Your task to perform on an android device: open chrome and create a bookmark for the current page Image 0: 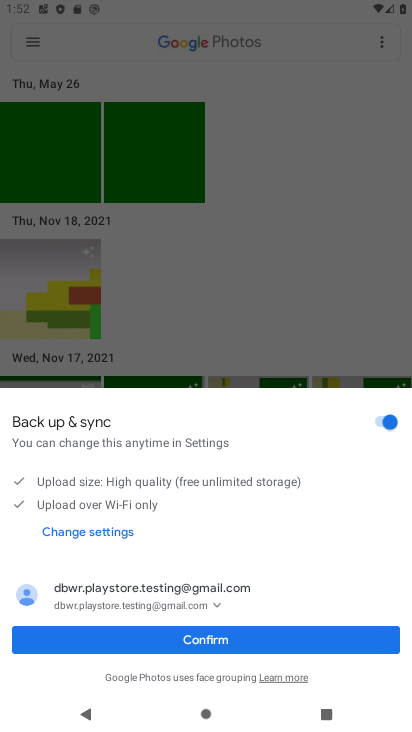
Step 0: press home button
Your task to perform on an android device: open chrome and create a bookmark for the current page Image 1: 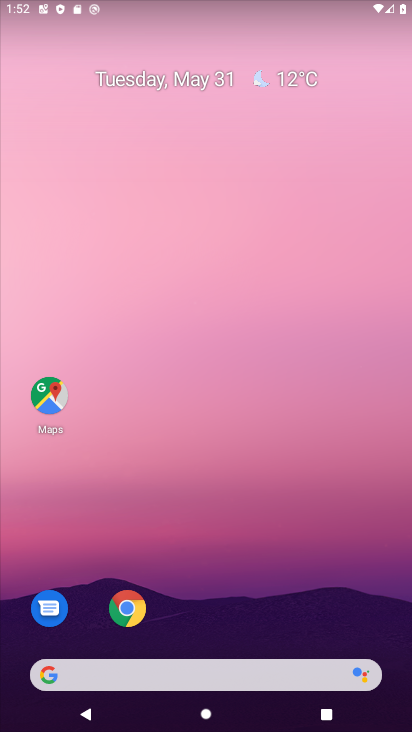
Step 1: drag from (345, 513) to (345, 170)
Your task to perform on an android device: open chrome and create a bookmark for the current page Image 2: 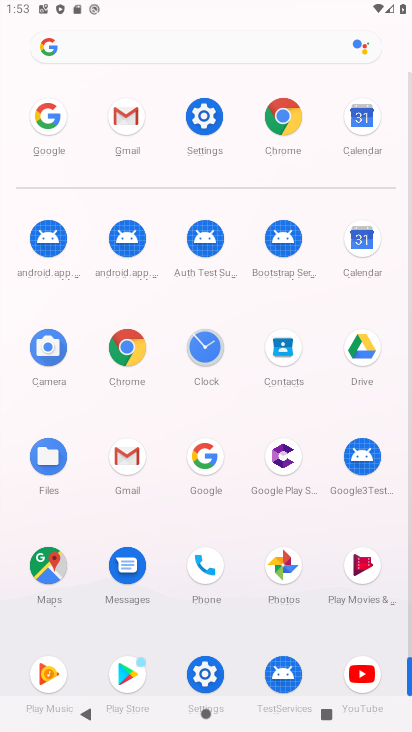
Step 2: click (116, 358)
Your task to perform on an android device: open chrome and create a bookmark for the current page Image 3: 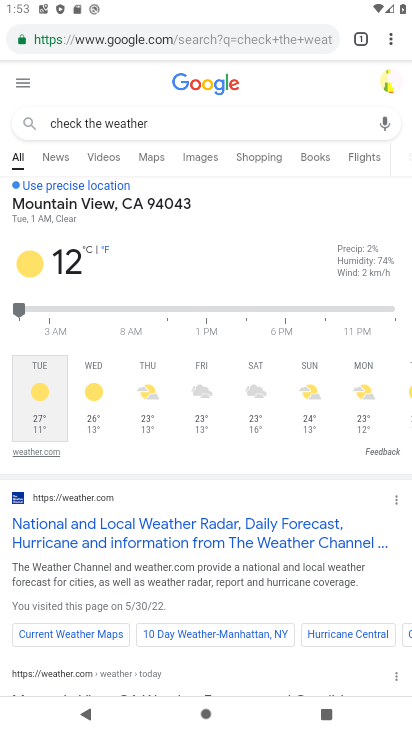
Step 3: drag from (387, 40) to (306, 143)
Your task to perform on an android device: open chrome and create a bookmark for the current page Image 4: 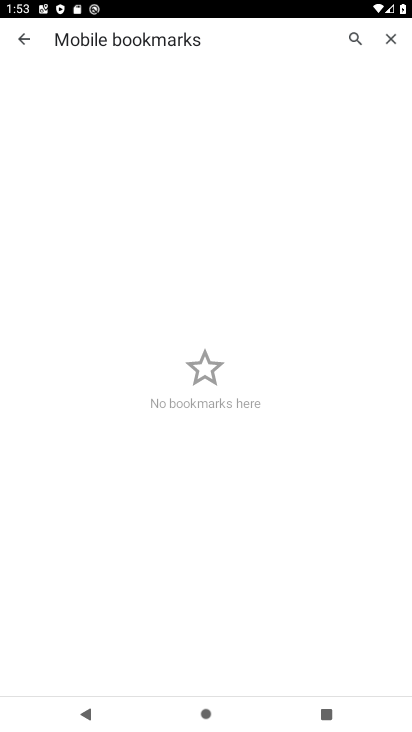
Step 4: click (17, 37)
Your task to perform on an android device: open chrome and create a bookmark for the current page Image 5: 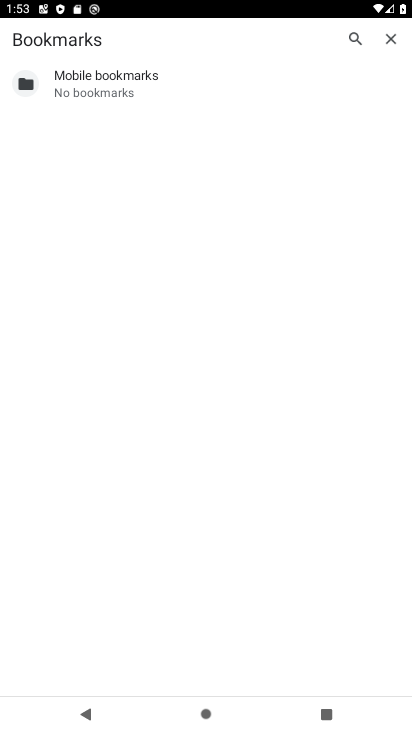
Step 5: click (380, 40)
Your task to perform on an android device: open chrome and create a bookmark for the current page Image 6: 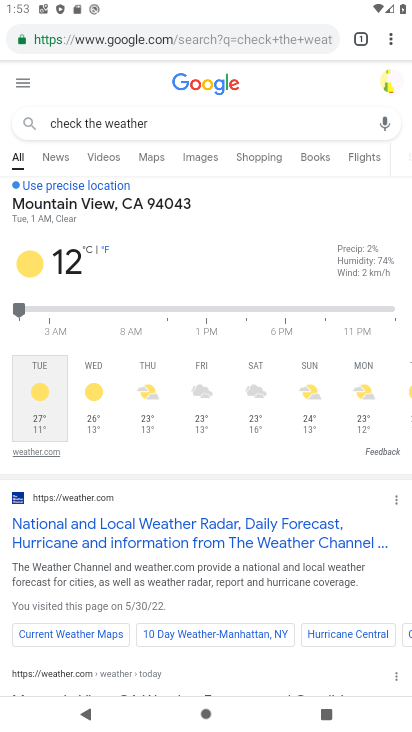
Step 6: task complete